Your task to perform on an android device: Go to Maps Image 0: 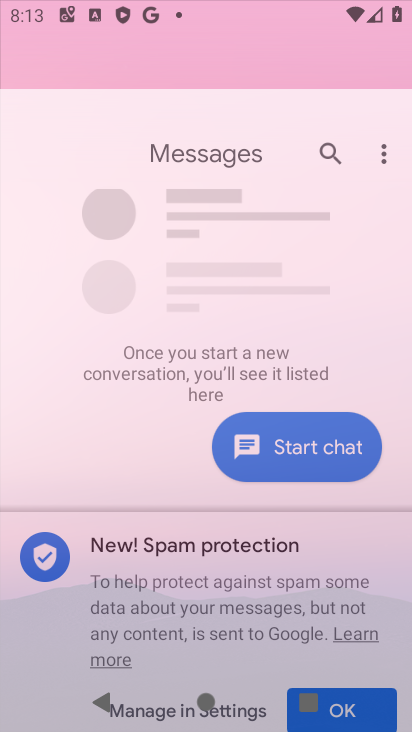
Step 0: drag from (258, 333) to (242, 127)
Your task to perform on an android device: Go to Maps Image 1: 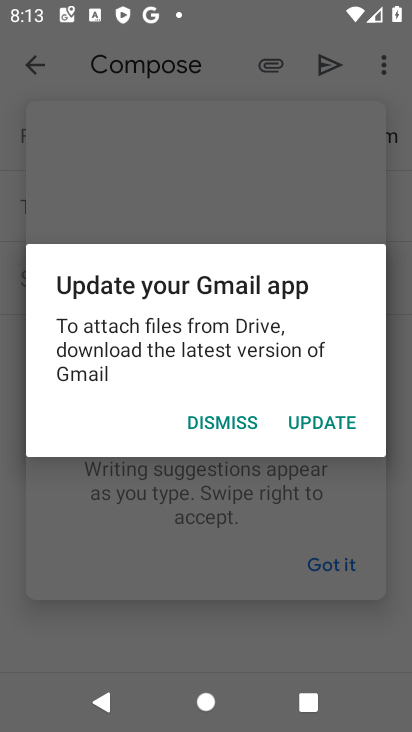
Step 1: press home button
Your task to perform on an android device: Go to Maps Image 2: 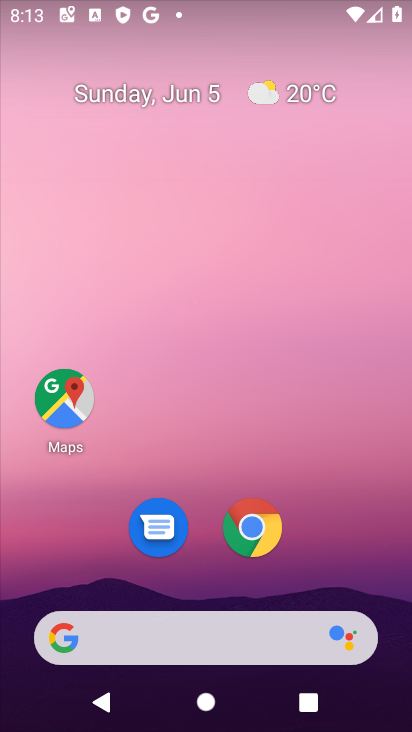
Step 2: click (76, 402)
Your task to perform on an android device: Go to Maps Image 3: 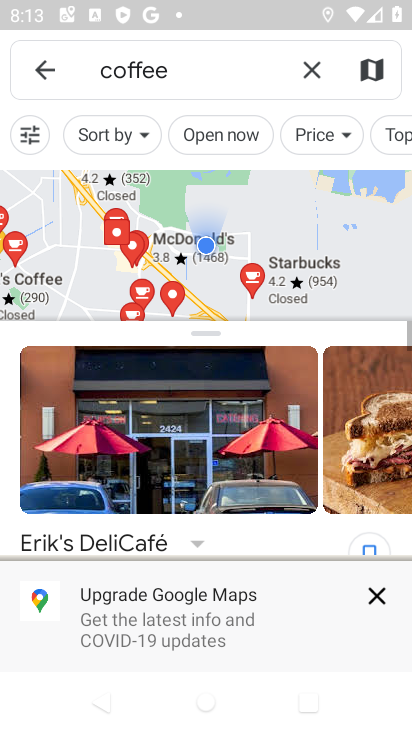
Step 3: task complete